Your task to perform on an android device: add a contact Image 0: 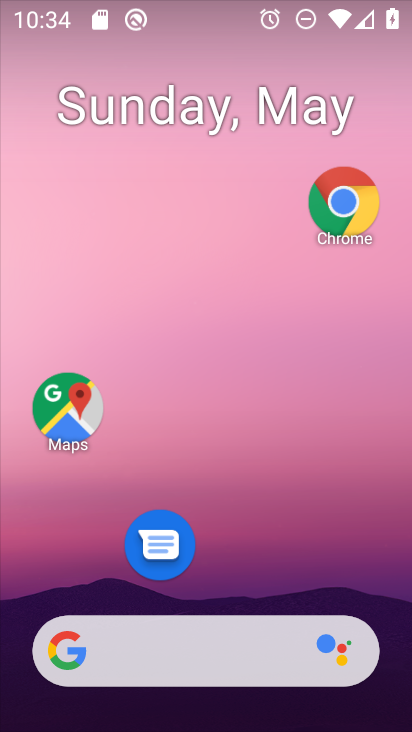
Step 0: drag from (284, 535) to (189, 0)
Your task to perform on an android device: add a contact Image 1: 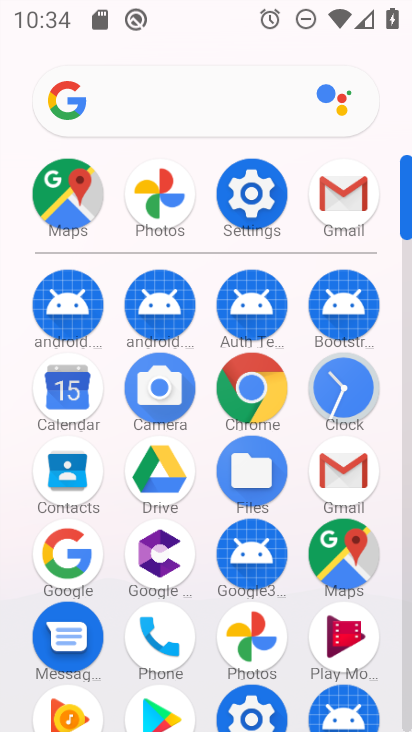
Step 1: click (67, 474)
Your task to perform on an android device: add a contact Image 2: 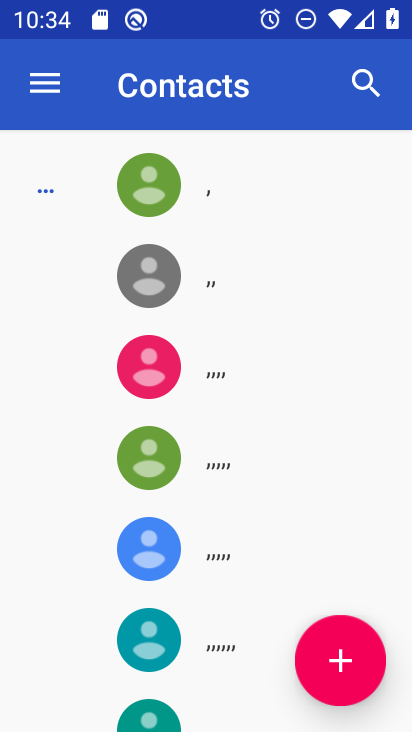
Step 2: click (354, 653)
Your task to perform on an android device: add a contact Image 3: 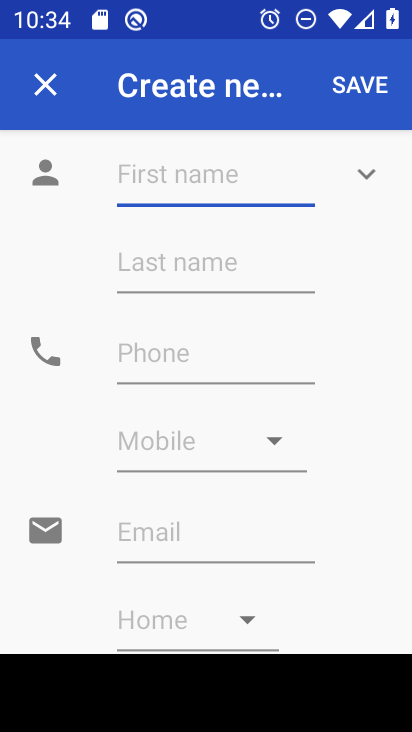
Step 3: type "drygfdse"
Your task to perform on an android device: add a contact Image 4: 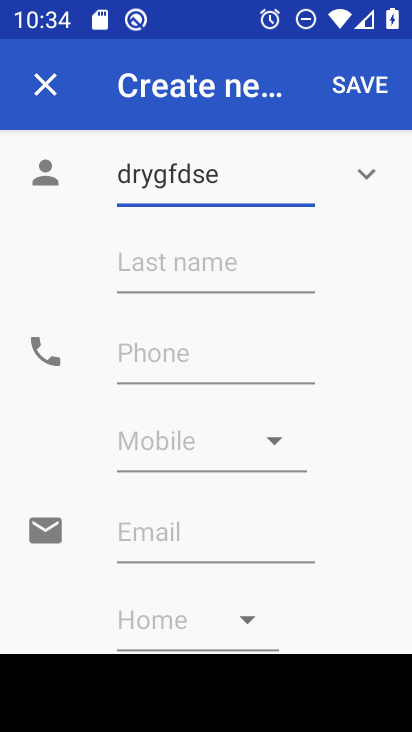
Step 4: click (188, 362)
Your task to perform on an android device: add a contact Image 5: 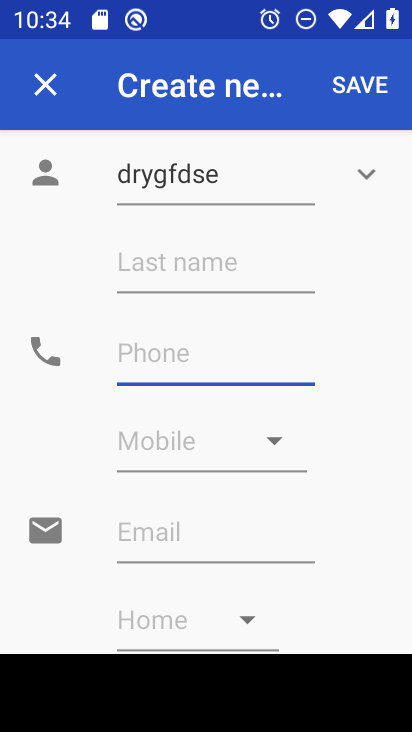
Step 5: type "2345678901"
Your task to perform on an android device: add a contact Image 6: 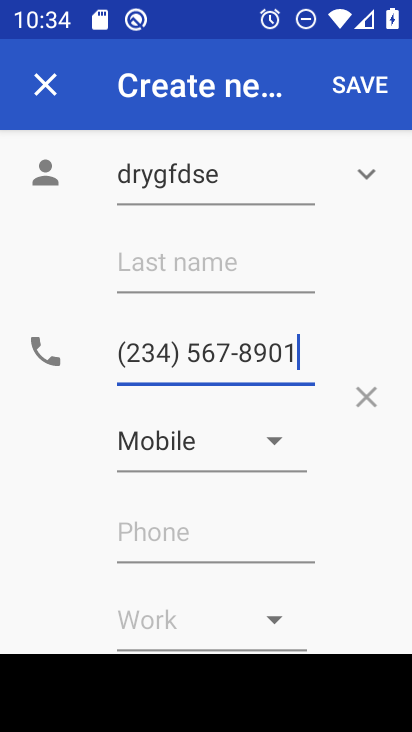
Step 6: click (351, 86)
Your task to perform on an android device: add a contact Image 7: 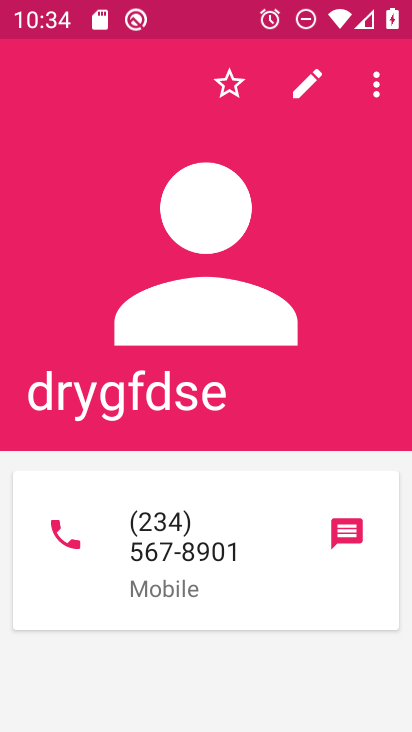
Step 7: task complete